Your task to perform on an android device: Go to wifi settings Image 0: 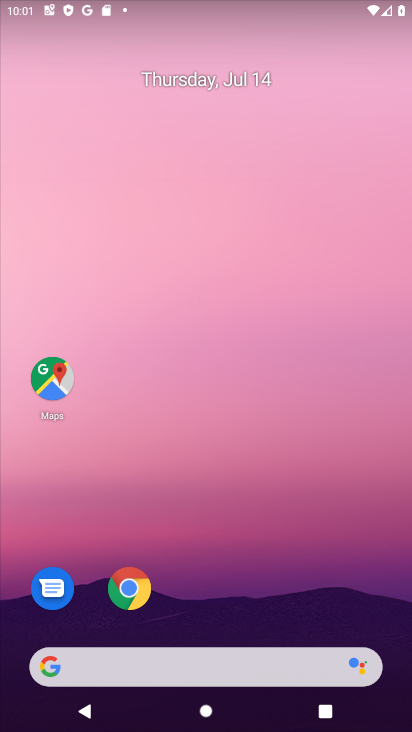
Step 0: drag from (151, 662) to (268, 107)
Your task to perform on an android device: Go to wifi settings Image 1: 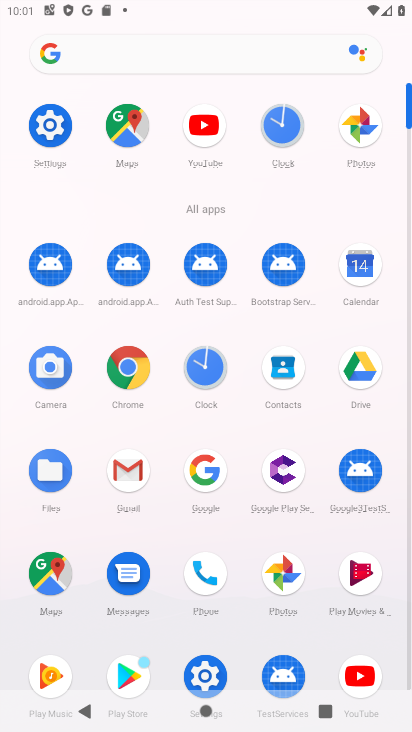
Step 1: click (42, 125)
Your task to perform on an android device: Go to wifi settings Image 2: 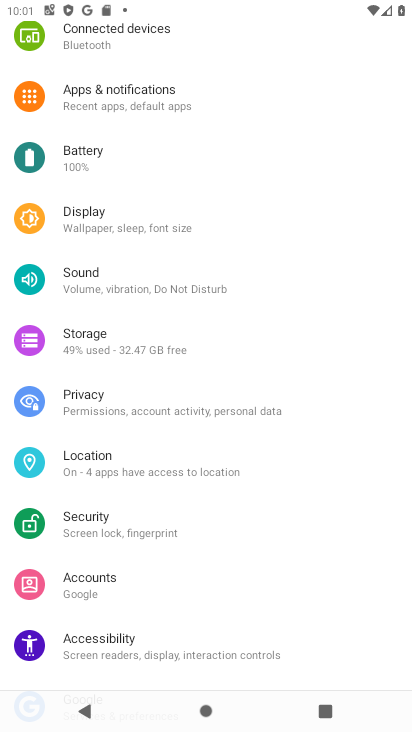
Step 2: drag from (275, 64) to (323, 614)
Your task to perform on an android device: Go to wifi settings Image 3: 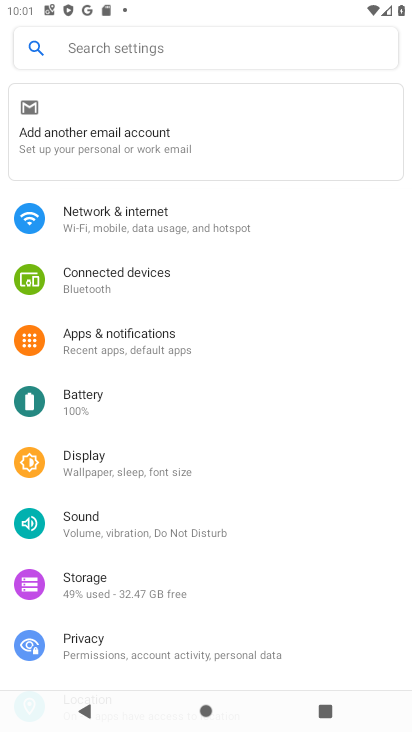
Step 3: click (139, 231)
Your task to perform on an android device: Go to wifi settings Image 4: 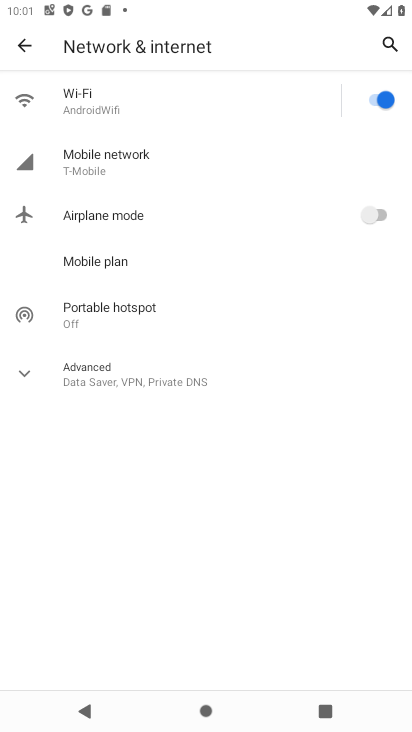
Step 4: click (70, 89)
Your task to perform on an android device: Go to wifi settings Image 5: 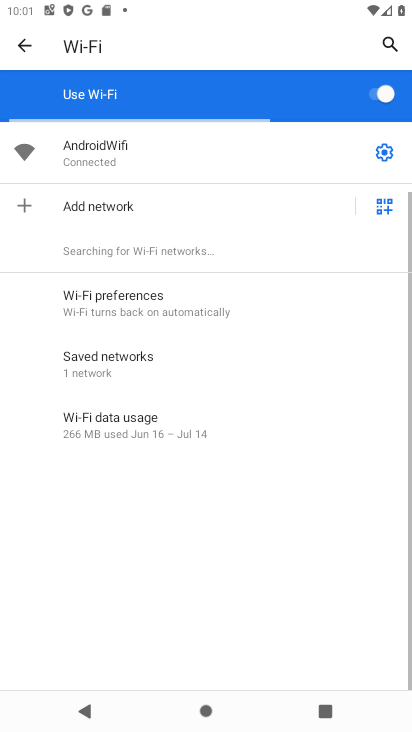
Step 5: task complete